Your task to perform on an android device: turn on sleep mode Image 0: 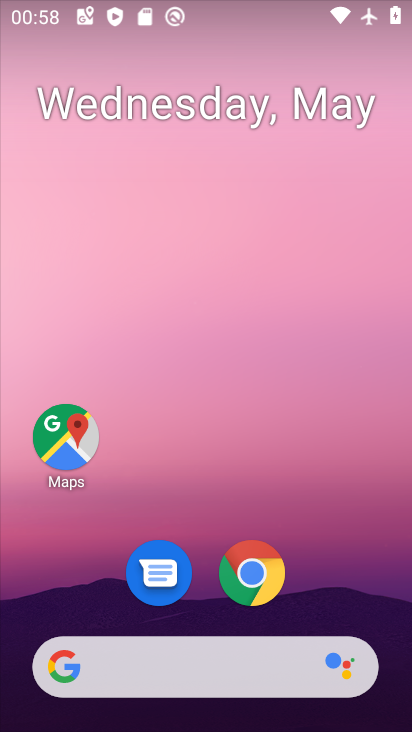
Step 0: drag from (335, 606) to (322, 218)
Your task to perform on an android device: turn on sleep mode Image 1: 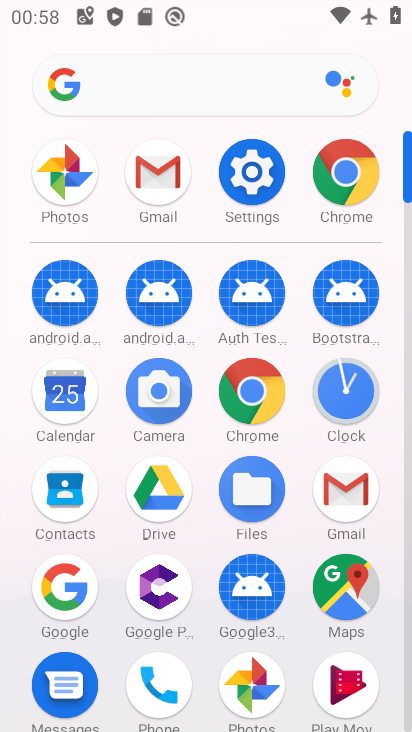
Step 1: click (255, 172)
Your task to perform on an android device: turn on sleep mode Image 2: 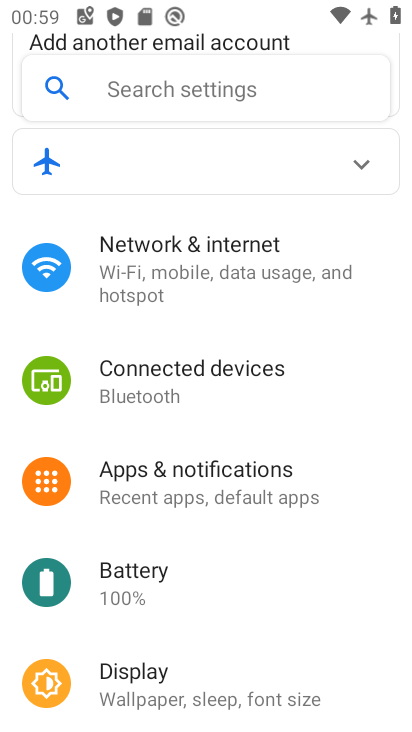
Step 2: task complete